Your task to perform on an android device: manage bookmarks in the chrome app Image 0: 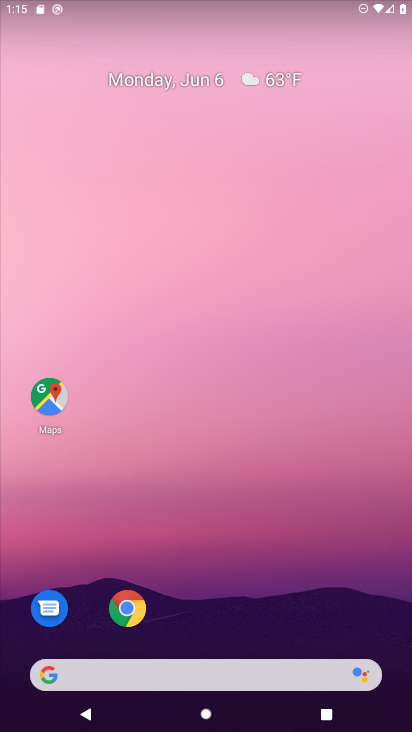
Step 0: click (145, 617)
Your task to perform on an android device: manage bookmarks in the chrome app Image 1: 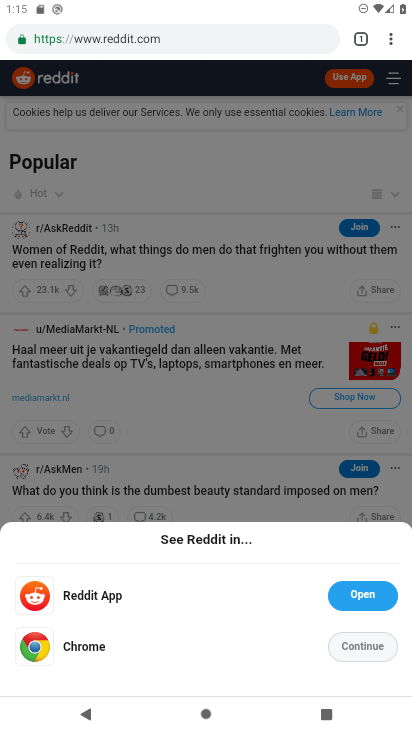
Step 1: click (400, 49)
Your task to perform on an android device: manage bookmarks in the chrome app Image 2: 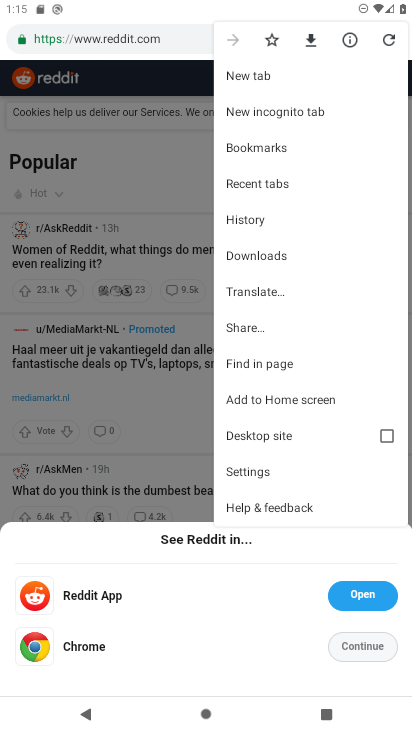
Step 2: click (297, 150)
Your task to perform on an android device: manage bookmarks in the chrome app Image 3: 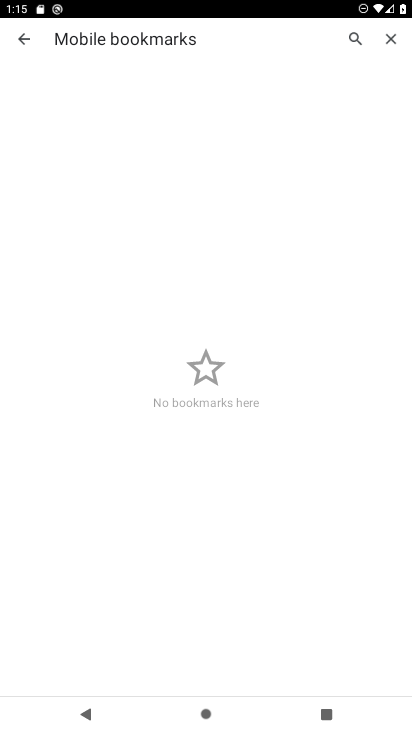
Step 3: task complete